Your task to perform on an android device: Open battery settings Image 0: 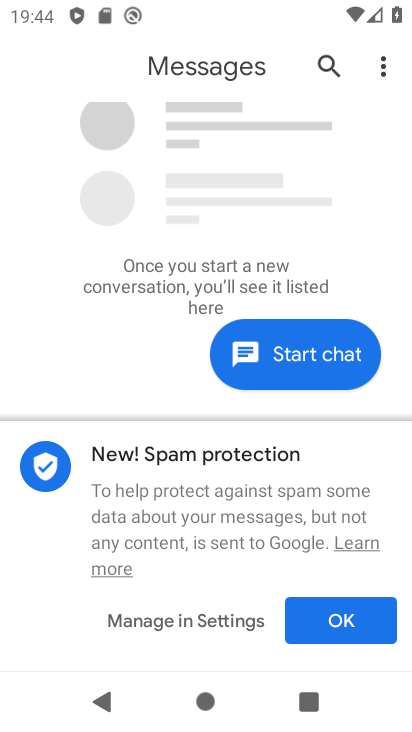
Step 0: press home button
Your task to perform on an android device: Open battery settings Image 1: 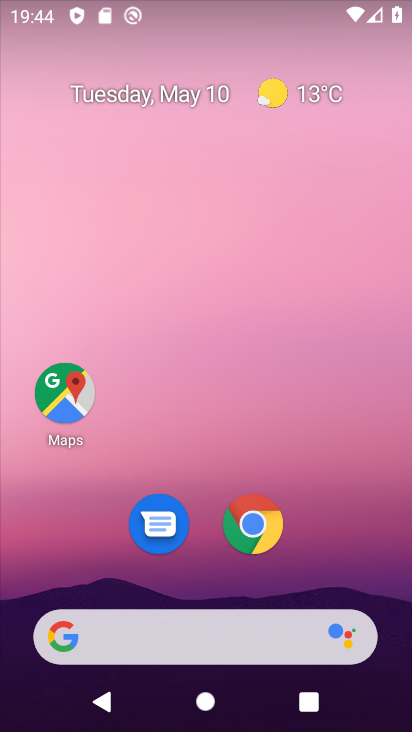
Step 1: drag from (325, 514) to (361, 42)
Your task to perform on an android device: Open battery settings Image 2: 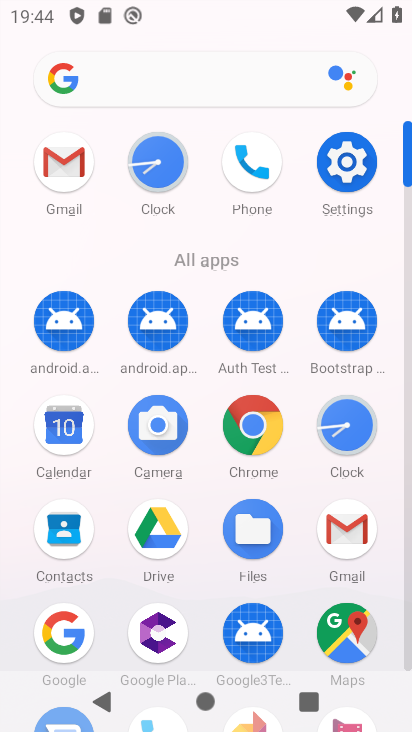
Step 2: click (345, 152)
Your task to perform on an android device: Open battery settings Image 3: 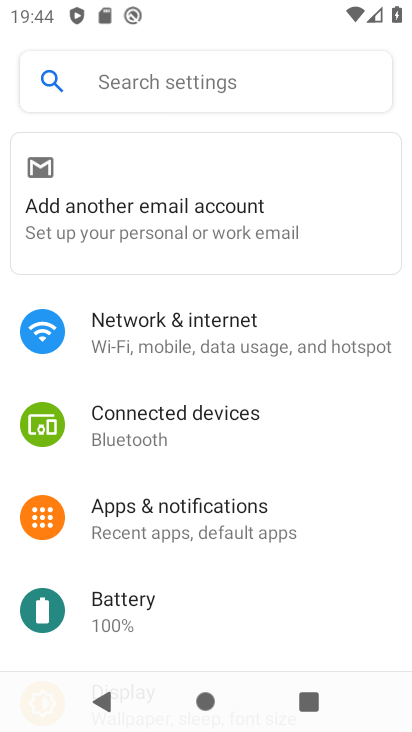
Step 3: click (182, 597)
Your task to perform on an android device: Open battery settings Image 4: 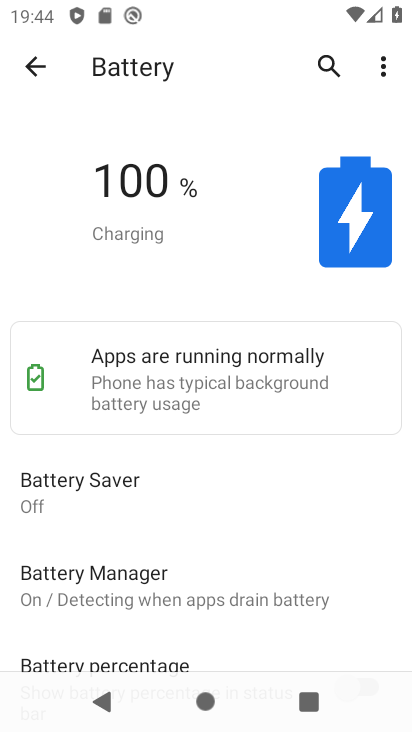
Step 4: task complete